Your task to perform on an android device: check data usage Image 0: 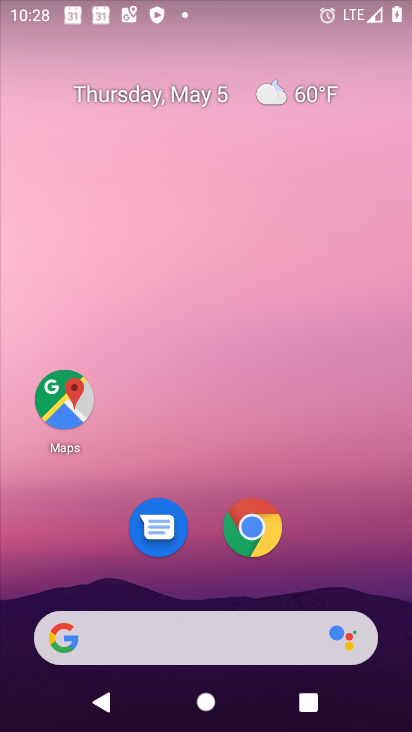
Step 0: drag from (186, 12) to (228, 22)
Your task to perform on an android device: check data usage Image 1: 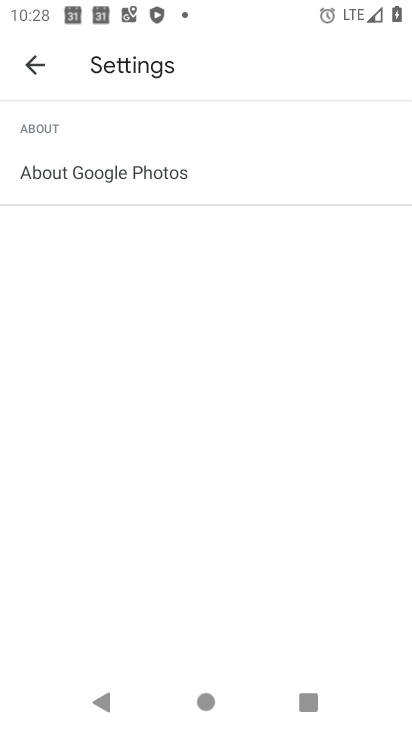
Step 1: press home button
Your task to perform on an android device: check data usage Image 2: 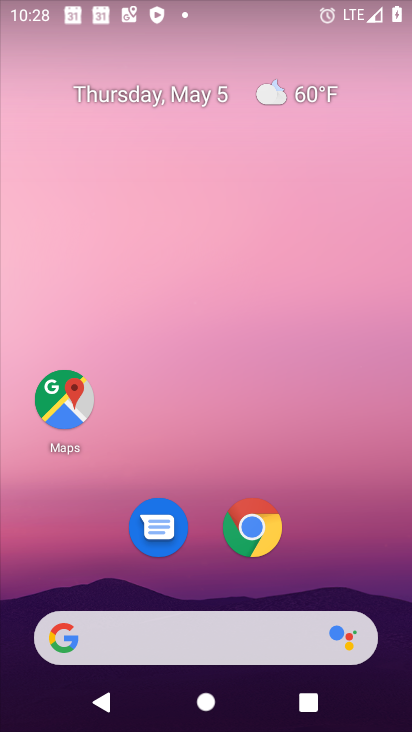
Step 2: drag from (247, 695) to (182, 87)
Your task to perform on an android device: check data usage Image 3: 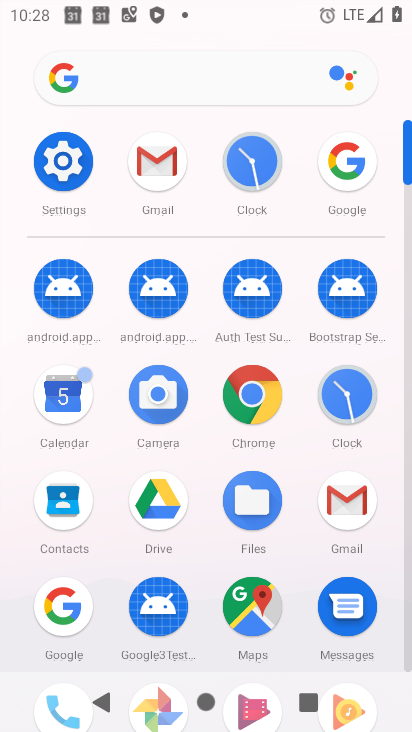
Step 3: click (55, 404)
Your task to perform on an android device: check data usage Image 4: 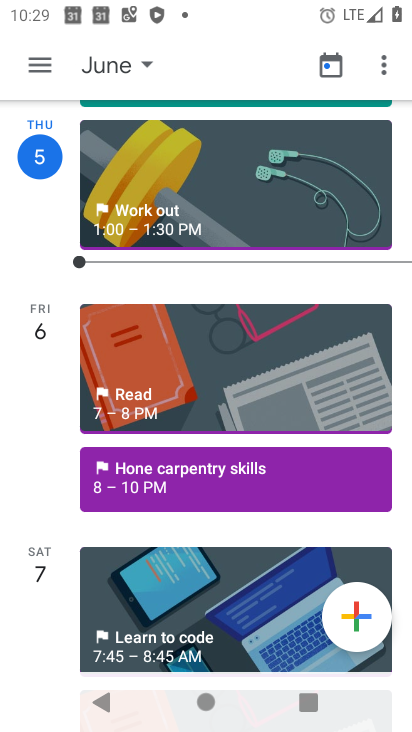
Step 4: press home button
Your task to perform on an android device: check data usage Image 5: 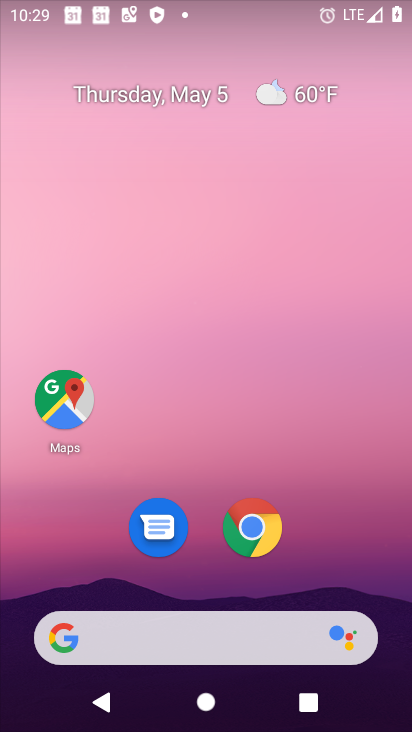
Step 5: drag from (250, 687) to (364, 109)
Your task to perform on an android device: check data usage Image 6: 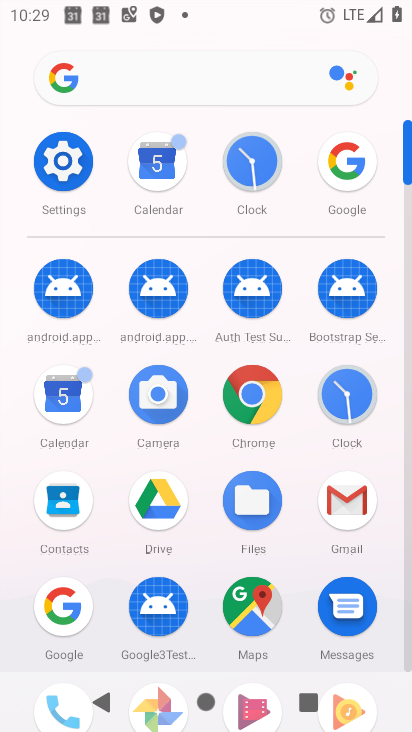
Step 6: click (44, 167)
Your task to perform on an android device: check data usage Image 7: 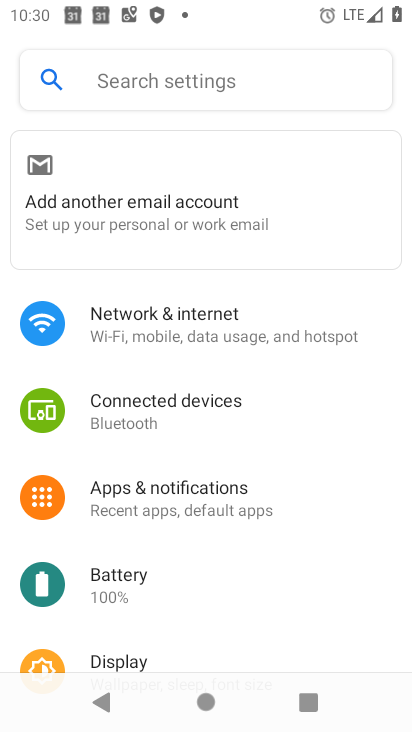
Step 7: click (261, 337)
Your task to perform on an android device: check data usage Image 8: 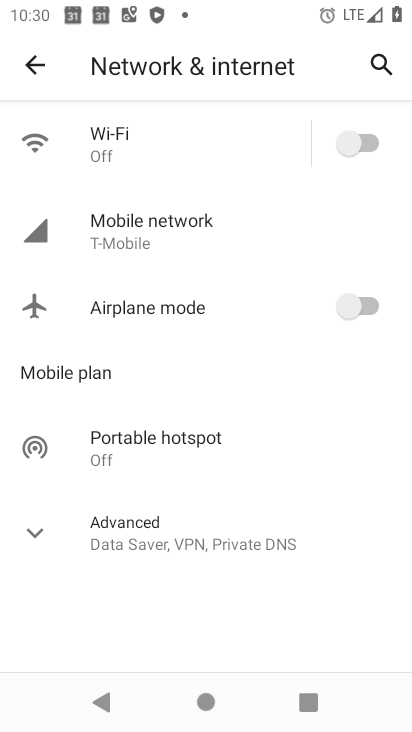
Step 8: click (198, 236)
Your task to perform on an android device: check data usage Image 9: 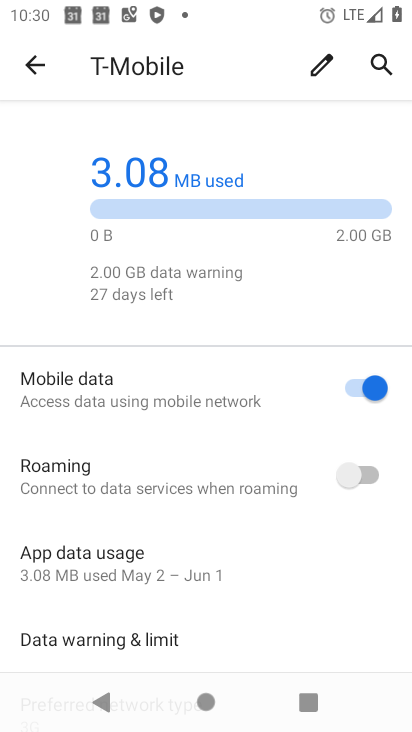
Step 9: task complete